Your task to perform on an android device: turn off sleep mode Image 0: 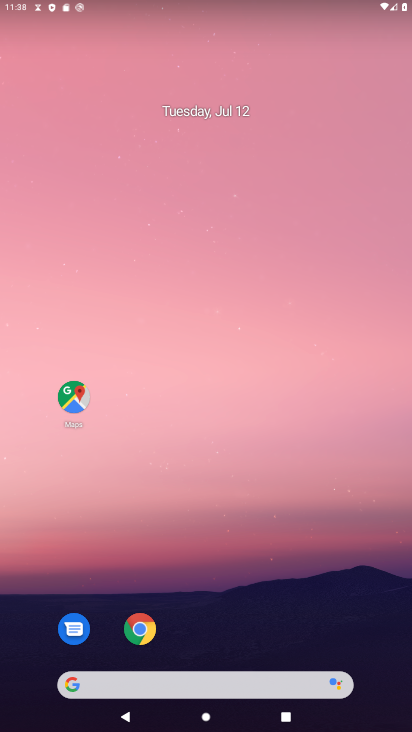
Step 0: drag from (197, 650) to (270, 86)
Your task to perform on an android device: turn off sleep mode Image 1: 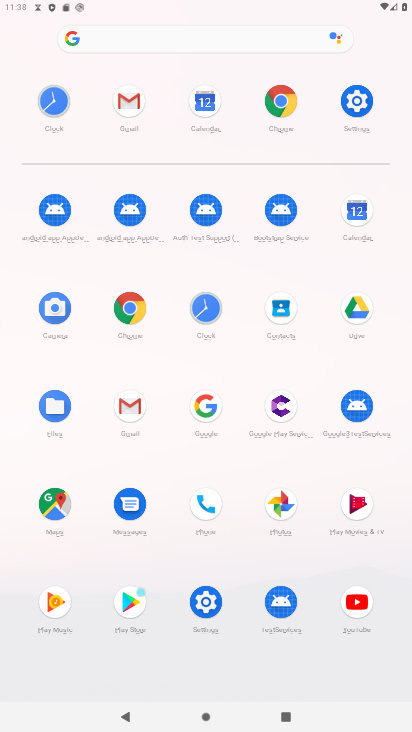
Step 1: click (369, 109)
Your task to perform on an android device: turn off sleep mode Image 2: 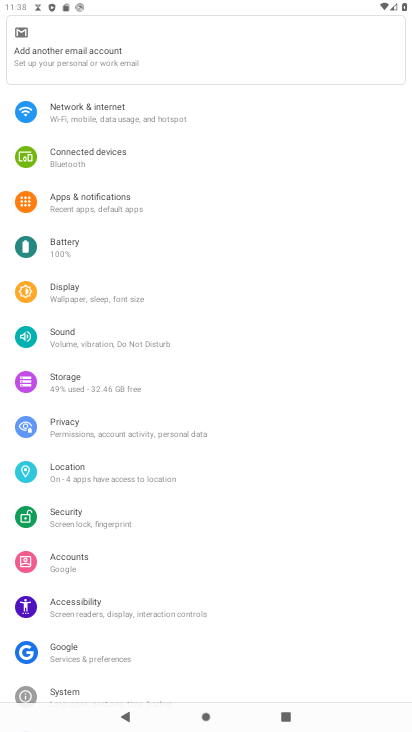
Step 2: click (69, 300)
Your task to perform on an android device: turn off sleep mode Image 3: 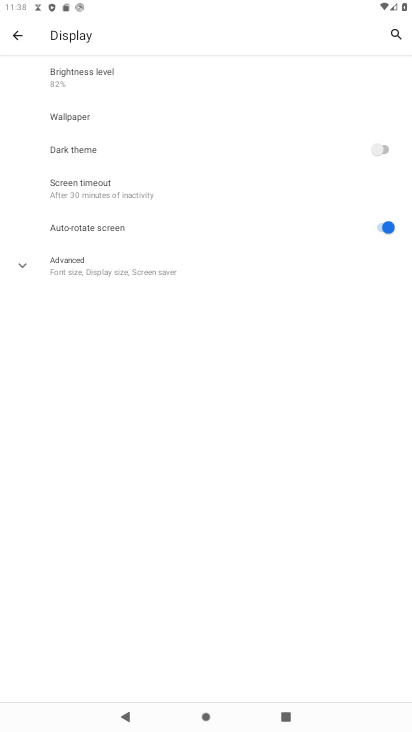
Step 3: click (71, 196)
Your task to perform on an android device: turn off sleep mode Image 4: 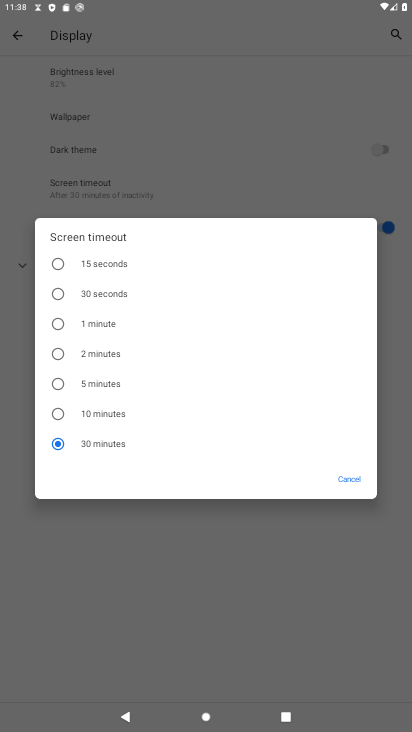
Step 4: task complete